Your task to perform on an android device: open app "AliExpress" Image 0: 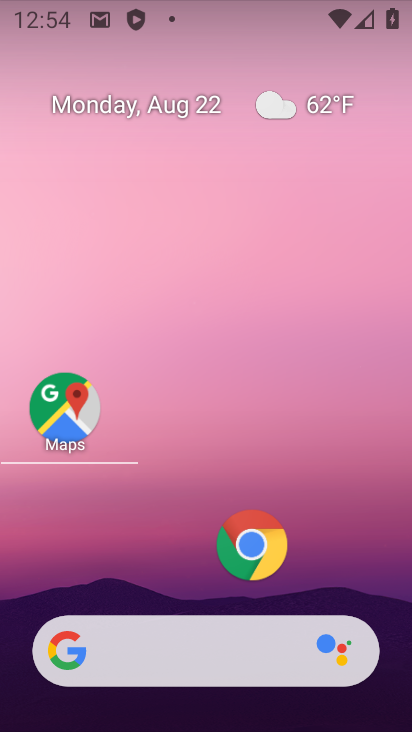
Step 0: drag from (162, 552) to (255, 69)
Your task to perform on an android device: open app "AliExpress" Image 1: 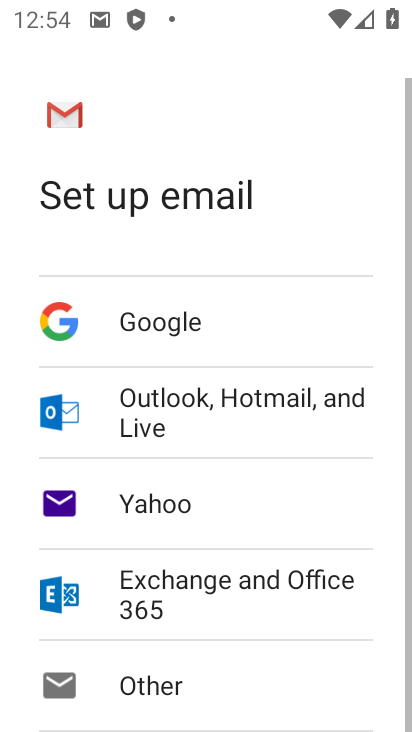
Step 1: press home button
Your task to perform on an android device: open app "AliExpress" Image 2: 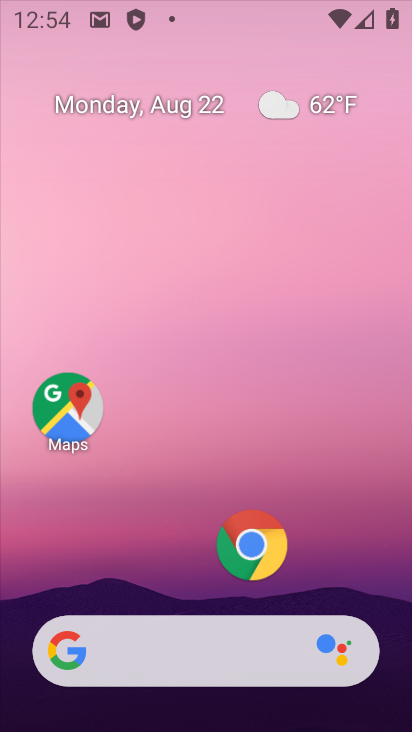
Step 2: drag from (147, 561) to (266, 3)
Your task to perform on an android device: open app "AliExpress" Image 3: 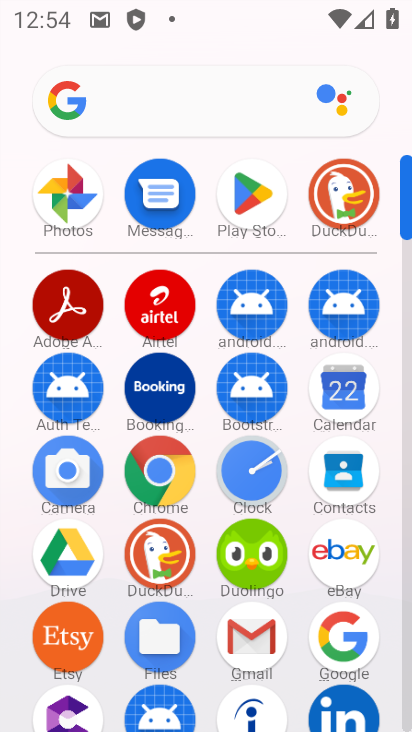
Step 3: click (258, 171)
Your task to perform on an android device: open app "AliExpress" Image 4: 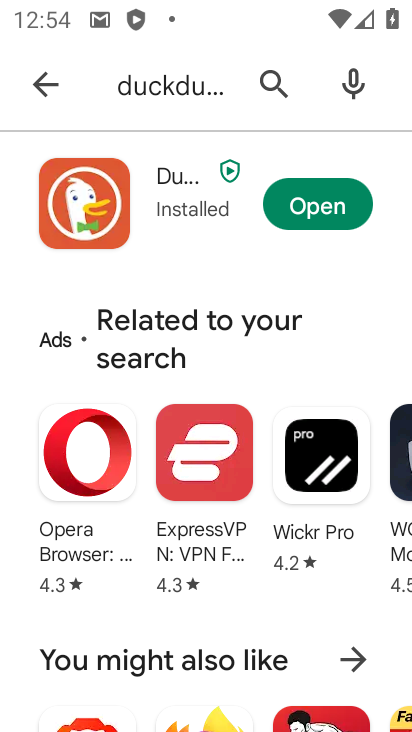
Step 4: click (284, 87)
Your task to perform on an android device: open app "AliExpress" Image 5: 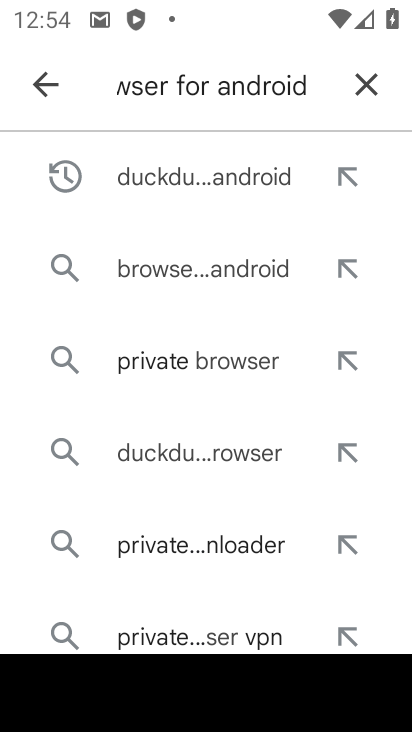
Step 5: click (359, 74)
Your task to perform on an android device: open app "AliExpress" Image 6: 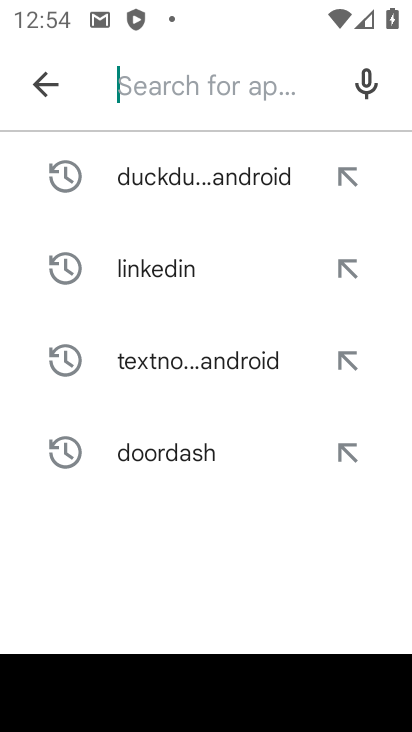
Step 6: click (193, 79)
Your task to perform on an android device: open app "AliExpress" Image 7: 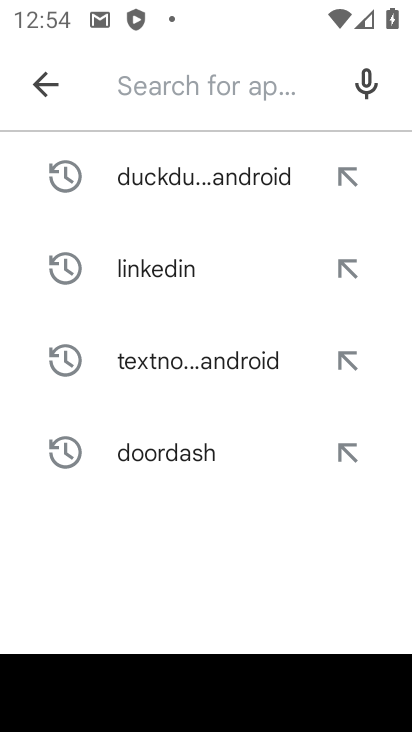
Step 7: type "AliExpress"
Your task to perform on an android device: open app "AliExpress" Image 8: 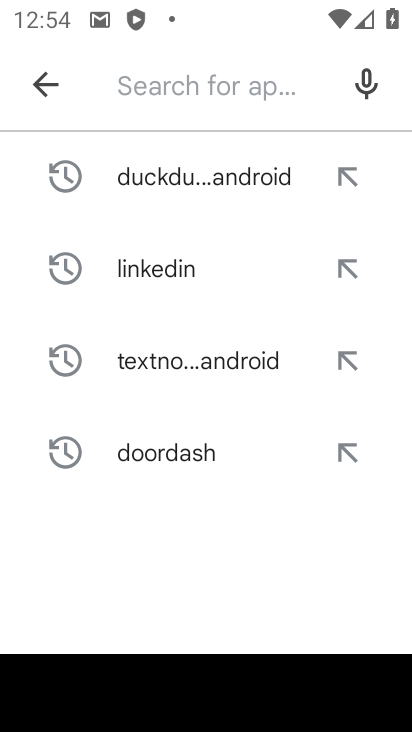
Step 8: click (156, 592)
Your task to perform on an android device: open app "AliExpress" Image 9: 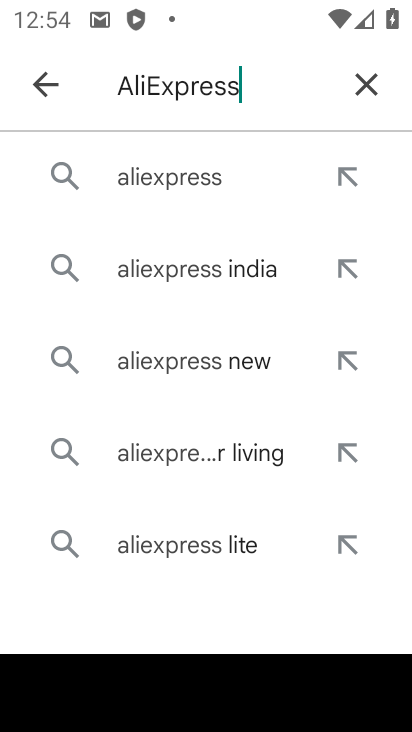
Step 9: click (126, 166)
Your task to perform on an android device: open app "AliExpress" Image 10: 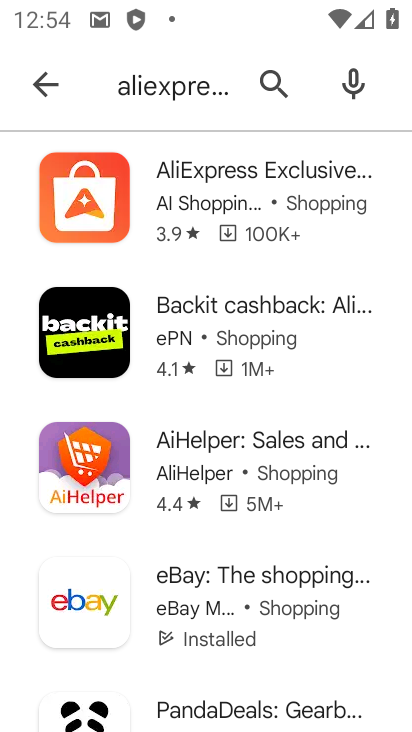
Step 10: click (174, 185)
Your task to perform on an android device: open app "AliExpress" Image 11: 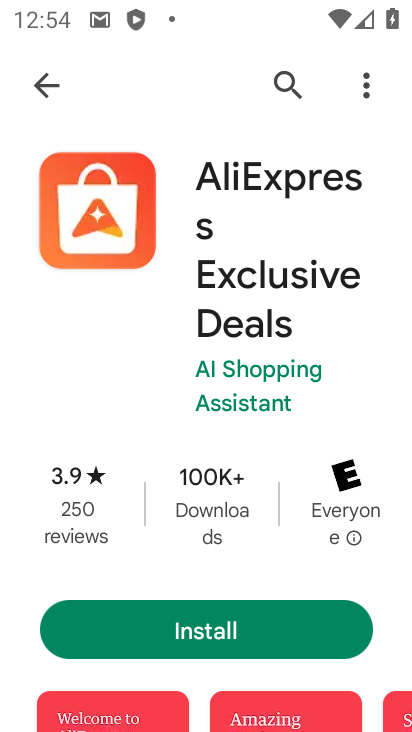
Step 11: task complete